Your task to perform on an android device: change notification settings in the gmail app Image 0: 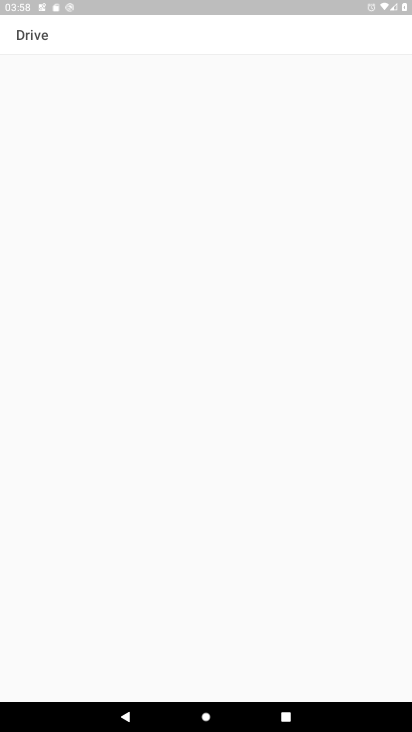
Step 0: press home button
Your task to perform on an android device: change notification settings in the gmail app Image 1: 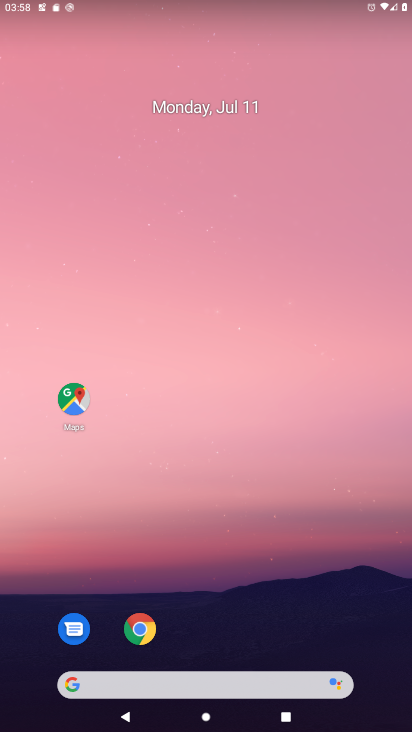
Step 1: drag from (239, 669) to (295, 14)
Your task to perform on an android device: change notification settings in the gmail app Image 2: 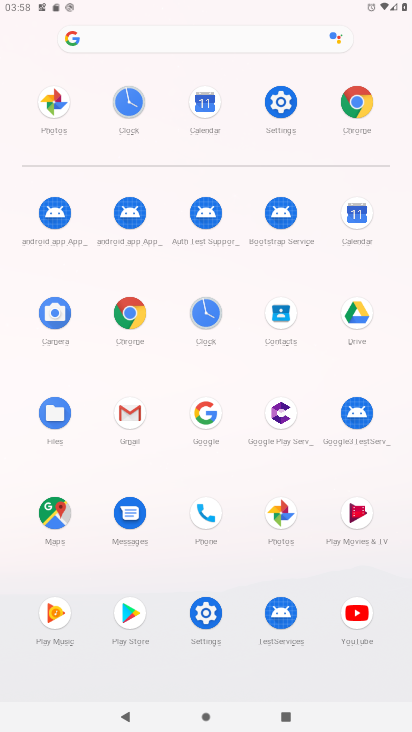
Step 2: click (136, 411)
Your task to perform on an android device: change notification settings in the gmail app Image 3: 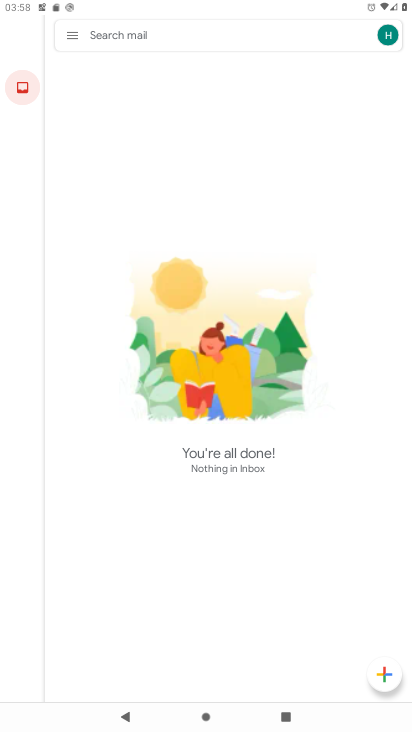
Step 3: click (75, 31)
Your task to perform on an android device: change notification settings in the gmail app Image 4: 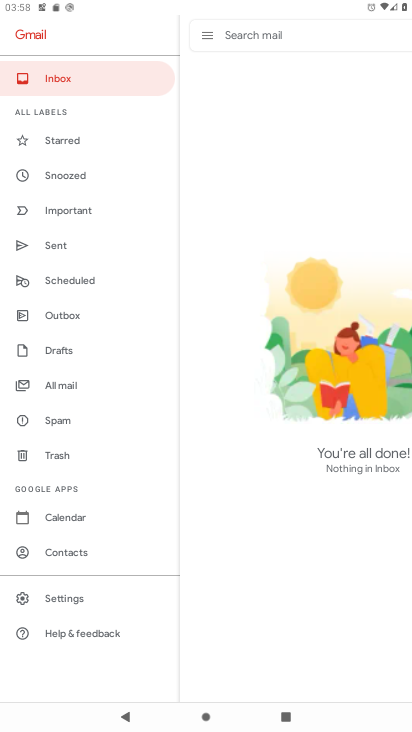
Step 4: click (52, 595)
Your task to perform on an android device: change notification settings in the gmail app Image 5: 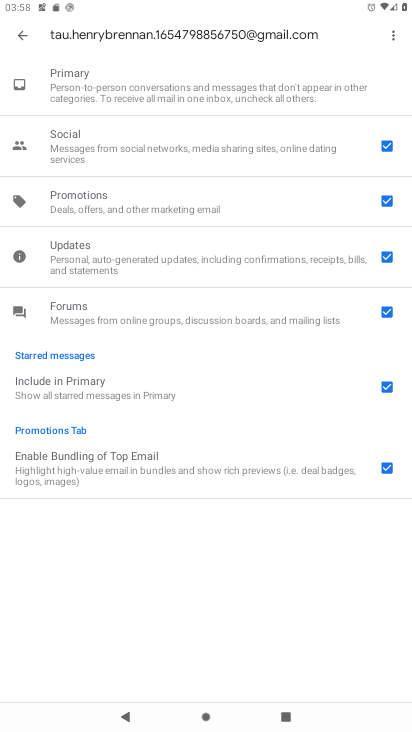
Step 5: click (25, 31)
Your task to perform on an android device: change notification settings in the gmail app Image 6: 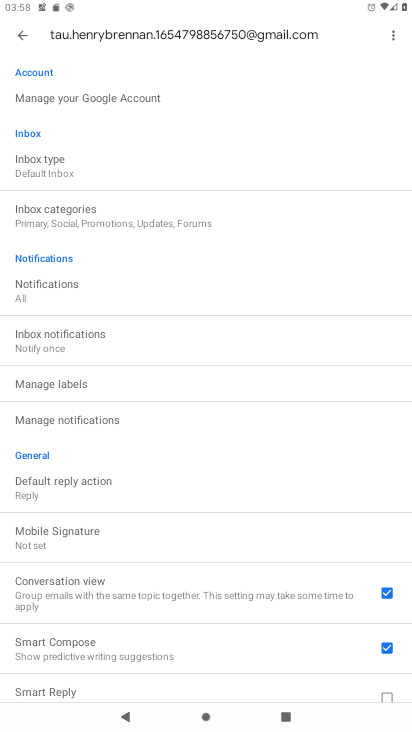
Step 6: click (79, 424)
Your task to perform on an android device: change notification settings in the gmail app Image 7: 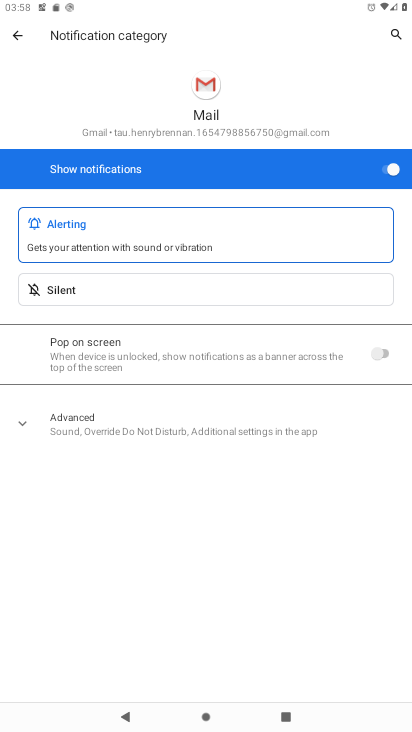
Step 7: click (70, 429)
Your task to perform on an android device: change notification settings in the gmail app Image 8: 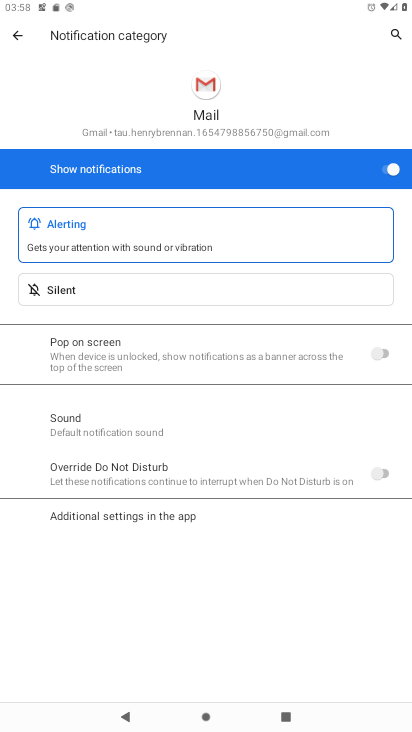
Step 8: click (378, 351)
Your task to perform on an android device: change notification settings in the gmail app Image 9: 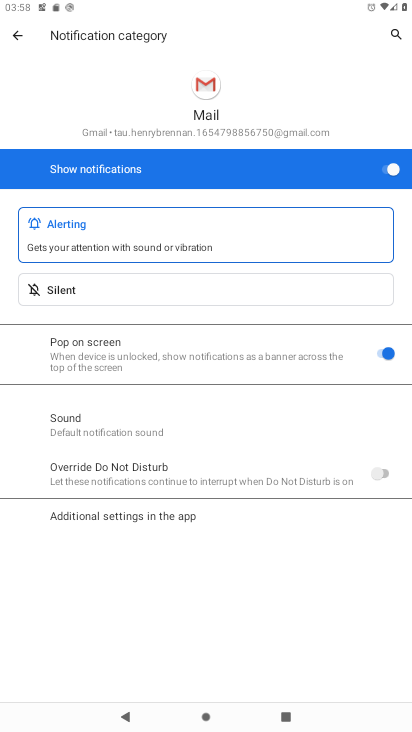
Step 9: task complete